Your task to perform on an android device: What's on my calendar today? Image 0: 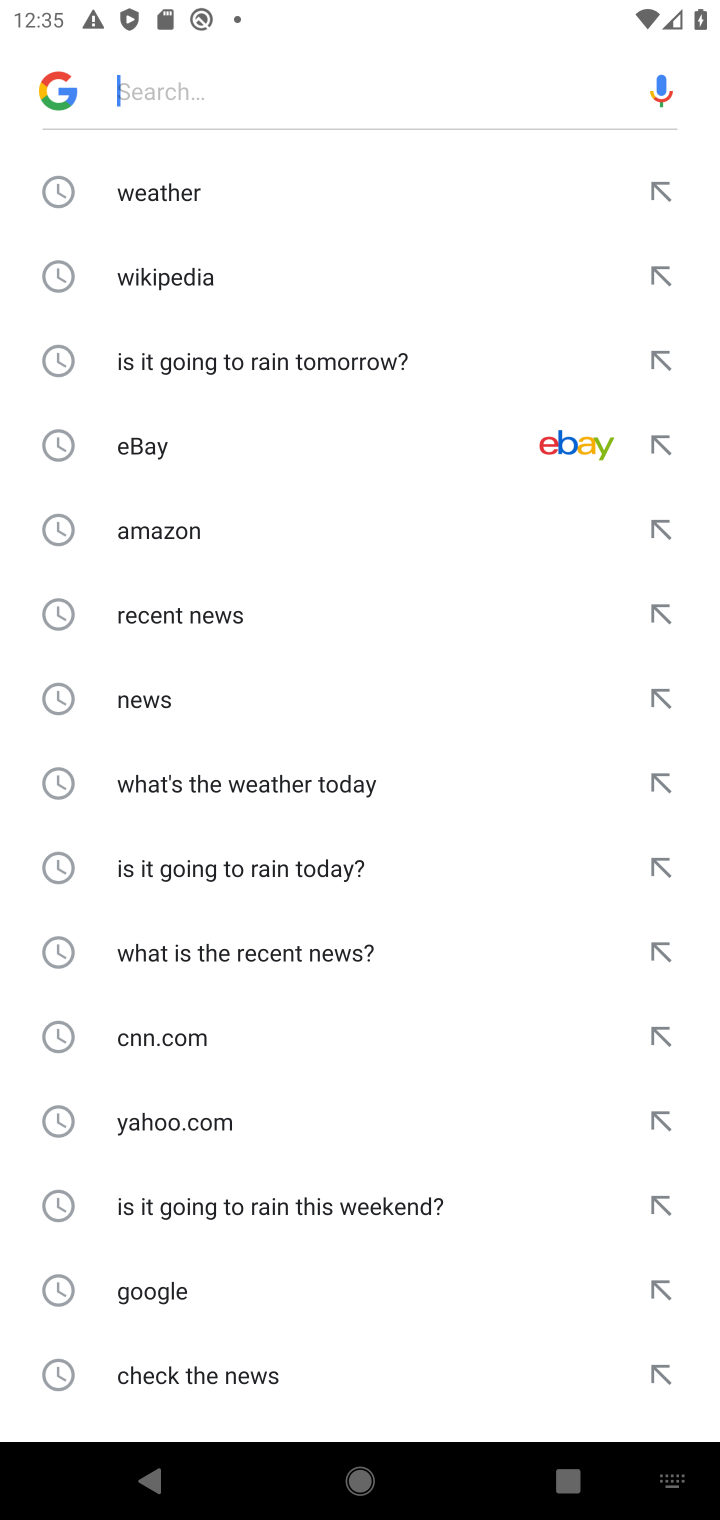
Step 0: press home button
Your task to perform on an android device: What's on my calendar today? Image 1: 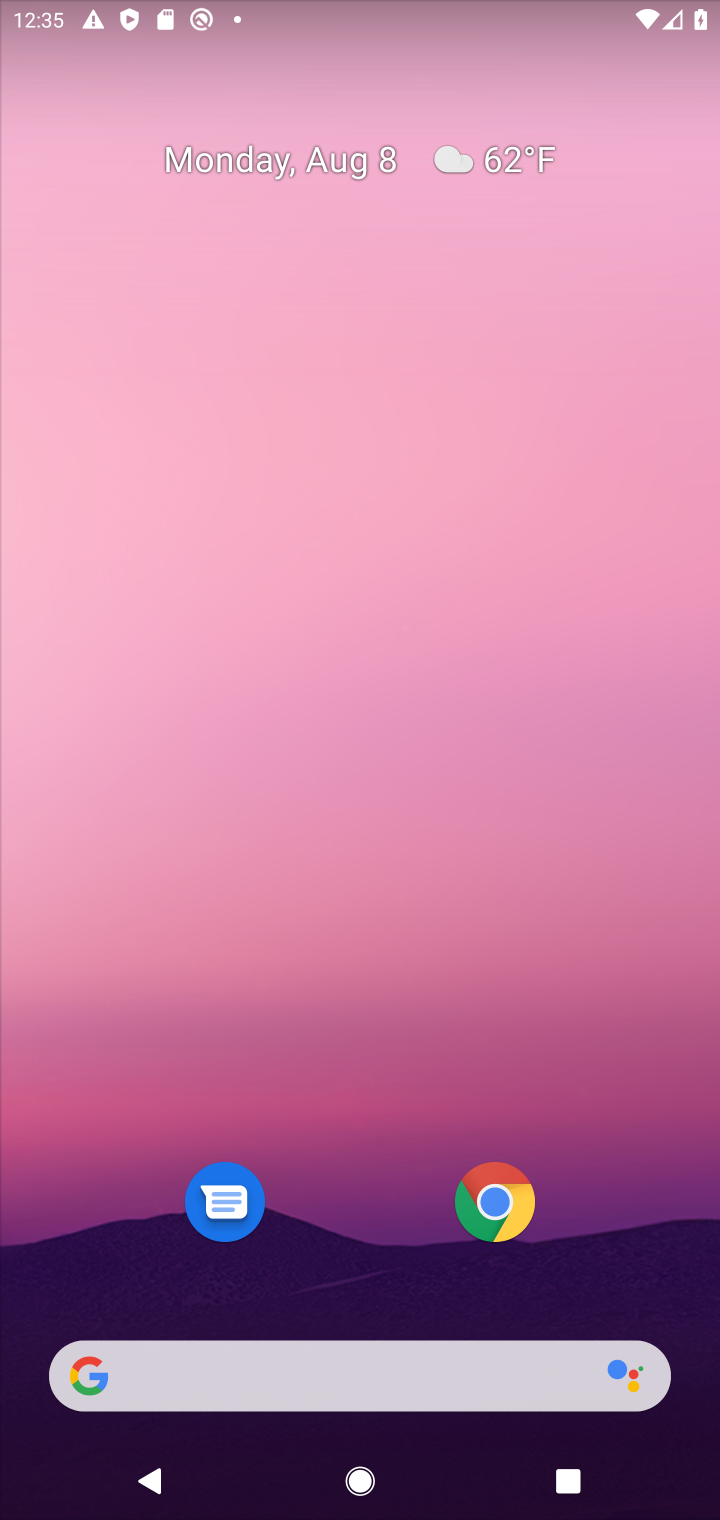
Step 1: click (388, 54)
Your task to perform on an android device: What's on my calendar today? Image 2: 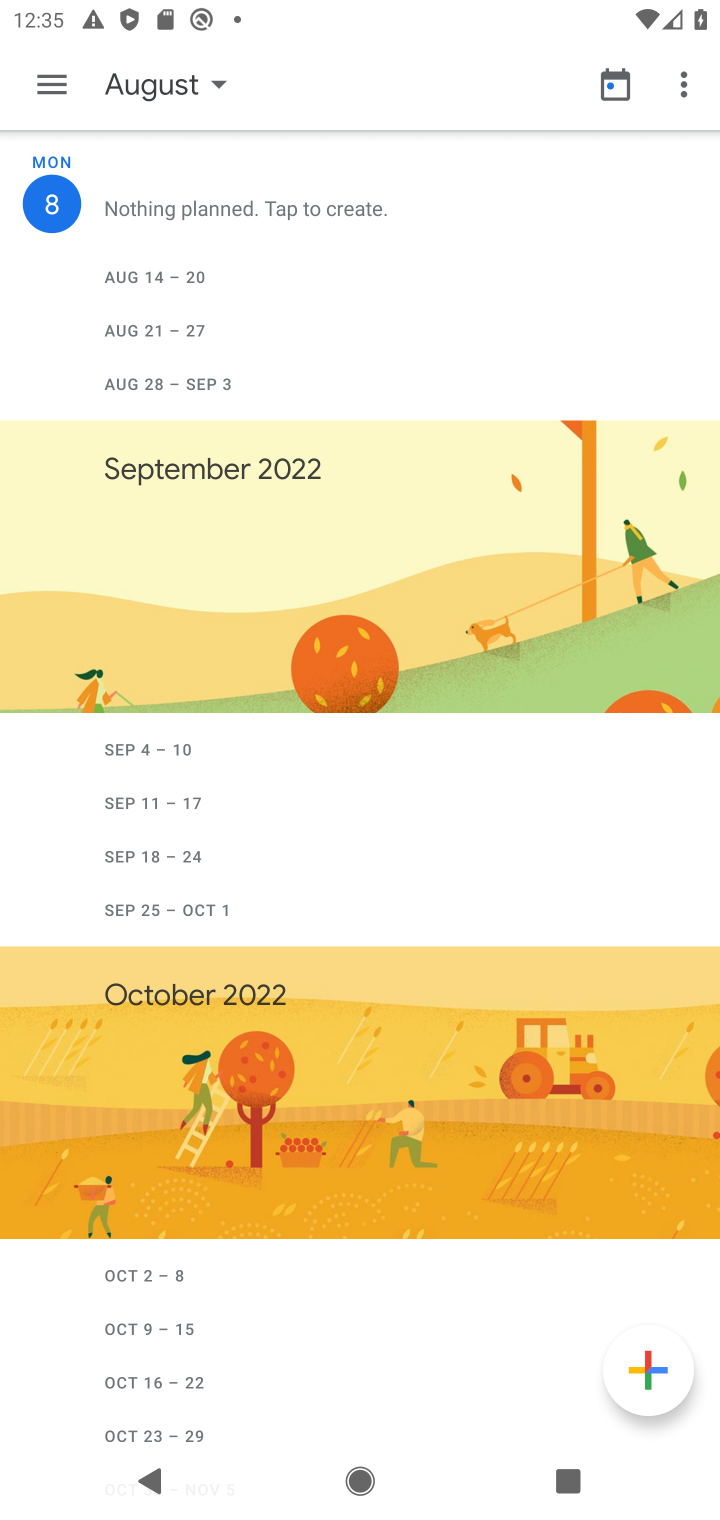
Step 2: task complete